Your task to perform on an android device: What's the weather going to be this weekend? Image 0: 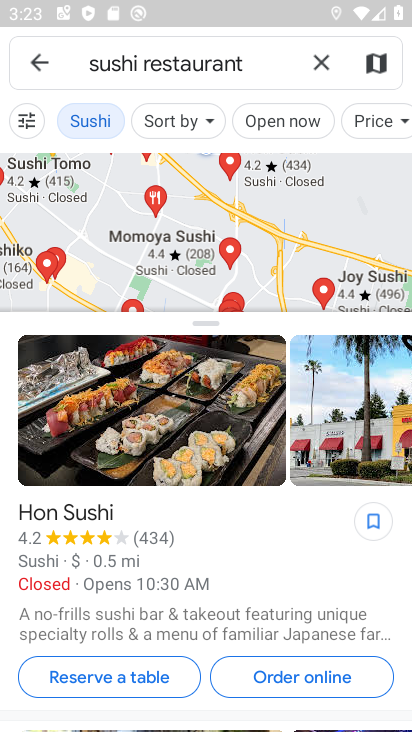
Step 0: press home button
Your task to perform on an android device: What's the weather going to be this weekend? Image 1: 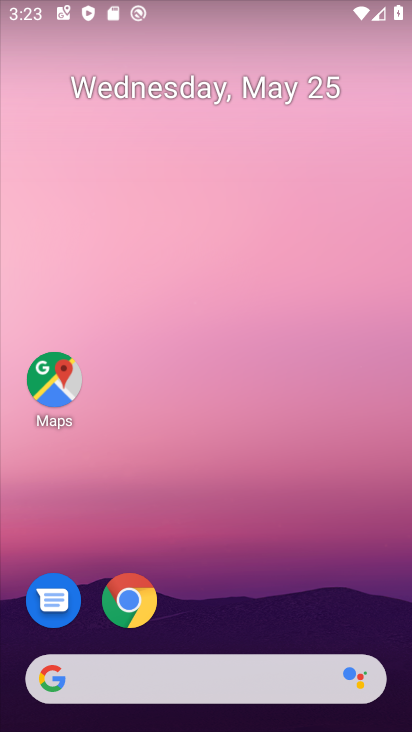
Step 1: drag from (5, 627) to (166, 200)
Your task to perform on an android device: What's the weather going to be this weekend? Image 2: 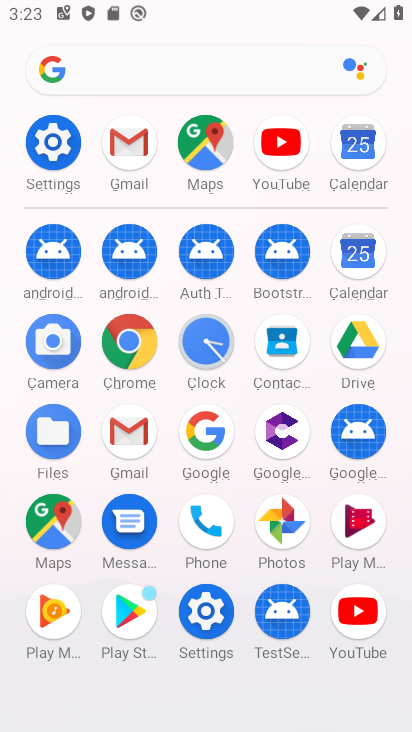
Step 2: press home button
Your task to perform on an android device: What's the weather going to be this weekend? Image 3: 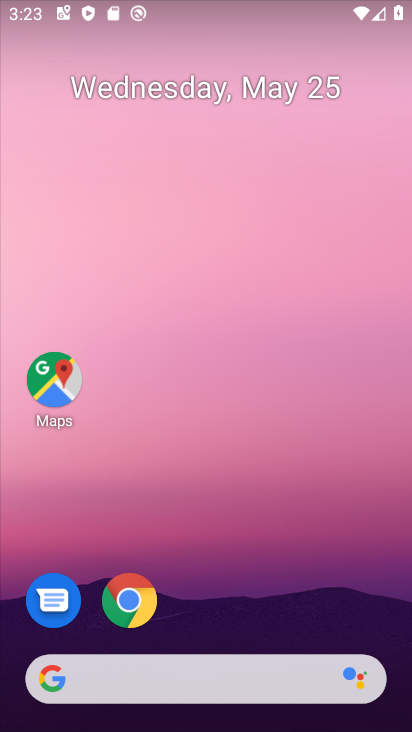
Step 3: click (188, 684)
Your task to perform on an android device: What's the weather going to be this weekend? Image 4: 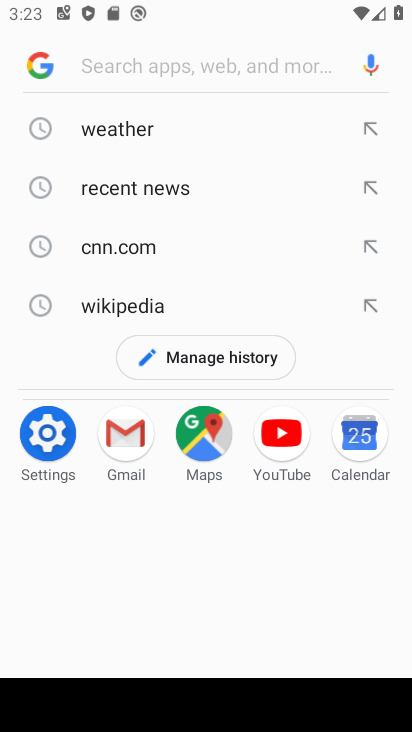
Step 4: click (102, 134)
Your task to perform on an android device: What's the weather going to be this weekend? Image 5: 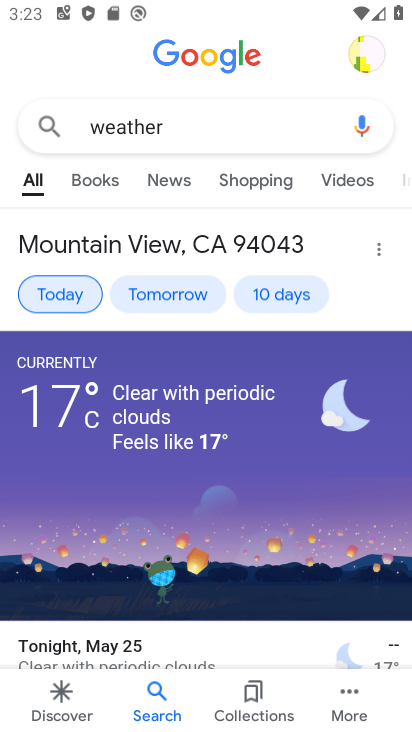
Step 5: task complete